Your task to perform on an android device: What's the weather today? Image 0: 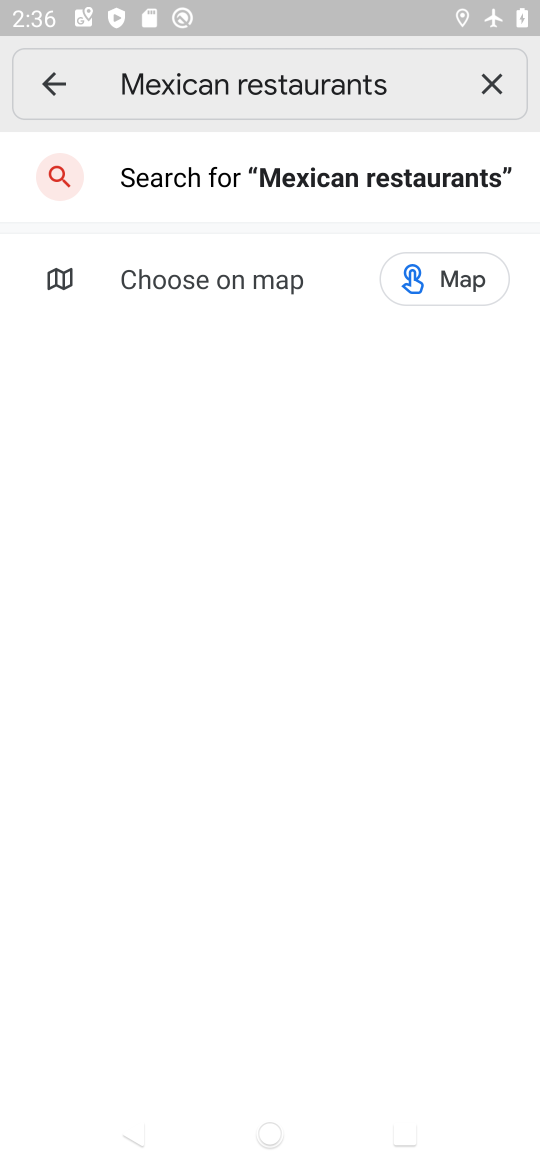
Step 0: press home button
Your task to perform on an android device: What's the weather today? Image 1: 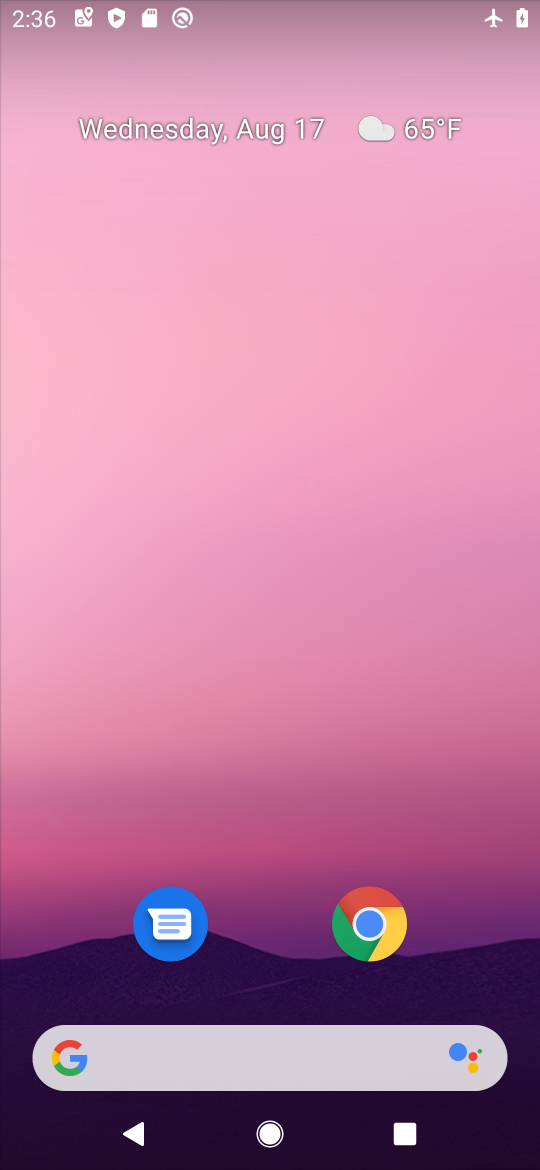
Step 1: drag from (250, 1061) to (283, 129)
Your task to perform on an android device: What's the weather today? Image 2: 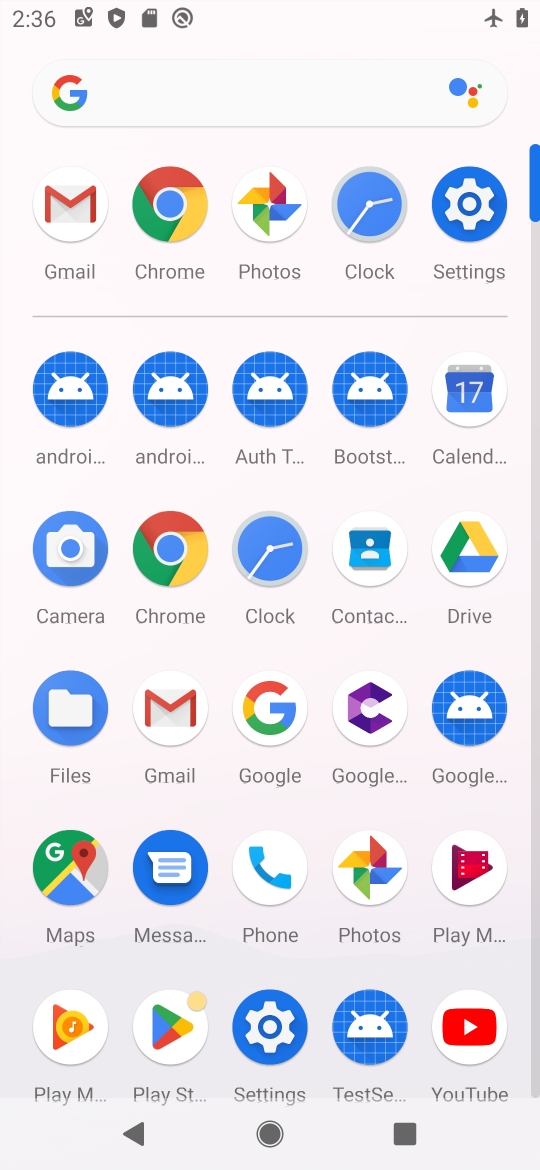
Step 2: click (266, 710)
Your task to perform on an android device: What's the weather today? Image 3: 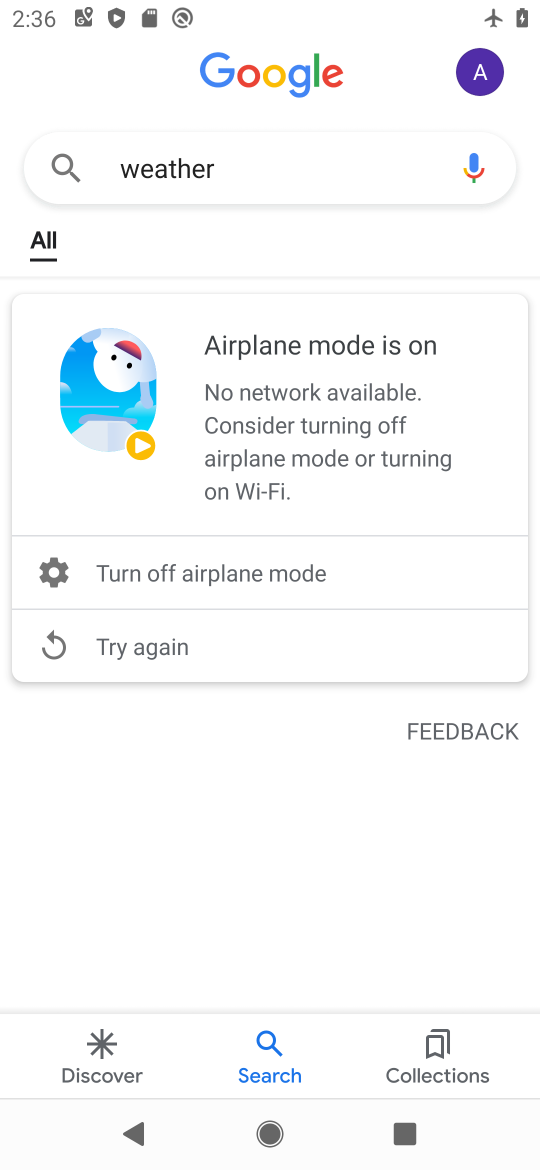
Step 3: task complete